Your task to perform on an android device: toggle notifications settings in the gmail app Image 0: 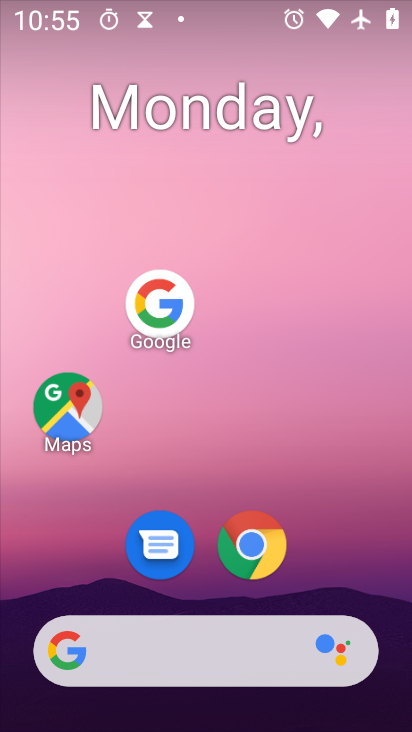
Step 0: press home button
Your task to perform on an android device: toggle notifications settings in the gmail app Image 1: 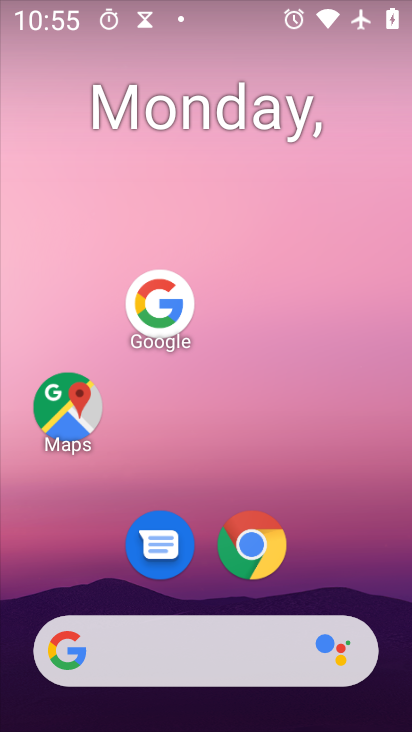
Step 1: drag from (204, 638) to (304, 110)
Your task to perform on an android device: toggle notifications settings in the gmail app Image 2: 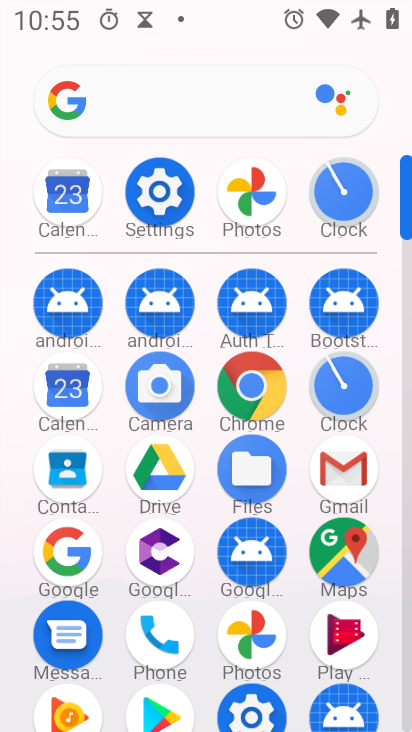
Step 2: click (351, 470)
Your task to perform on an android device: toggle notifications settings in the gmail app Image 3: 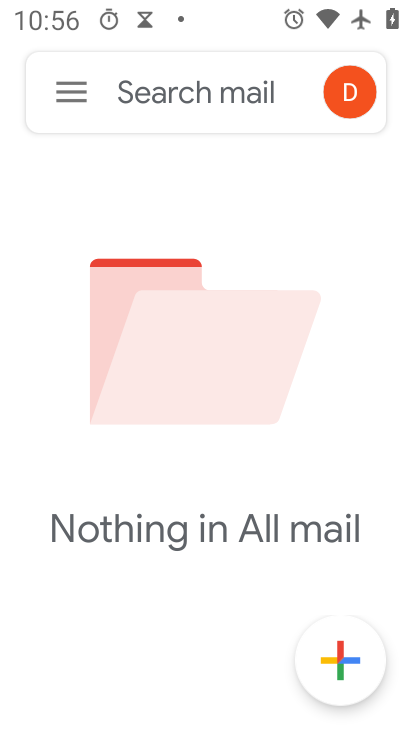
Step 3: click (70, 87)
Your task to perform on an android device: toggle notifications settings in the gmail app Image 4: 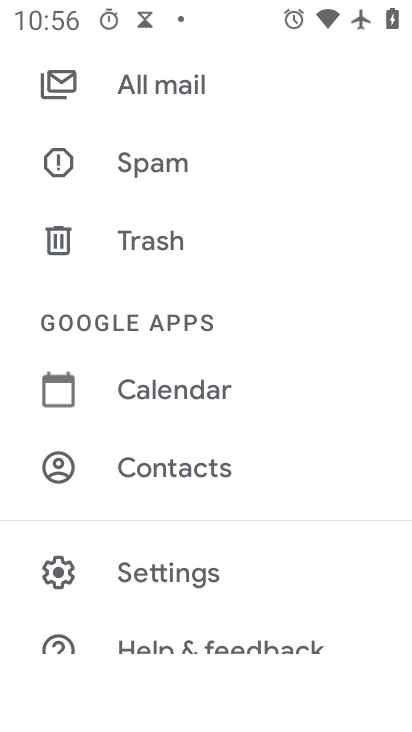
Step 4: click (195, 573)
Your task to perform on an android device: toggle notifications settings in the gmail app Image 5: 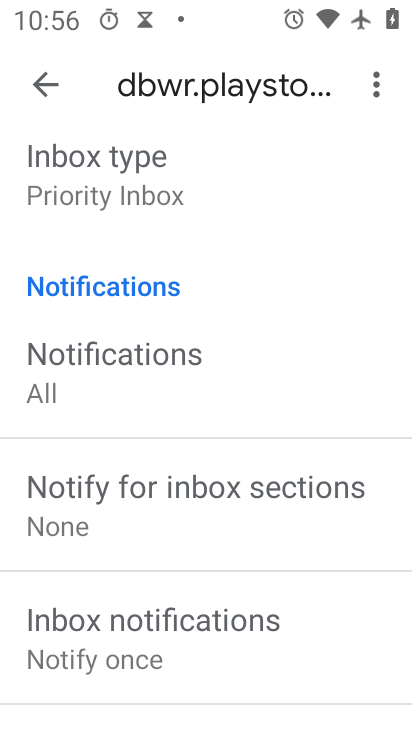
Step 5: click (108, 376)
Your task to perform on an android device: toggle notifications settings in the gmail app Image 6: 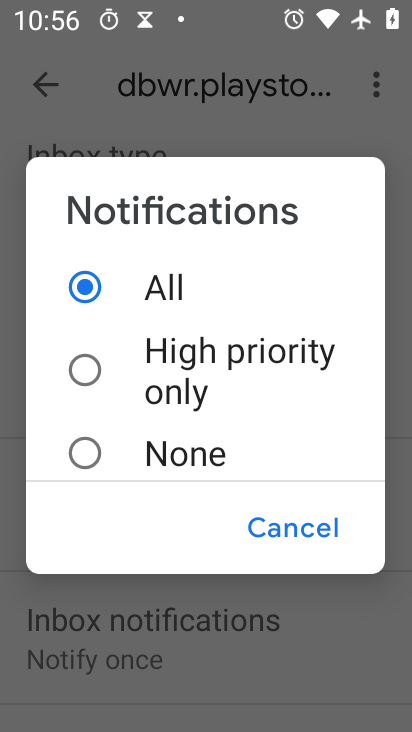
Step 6: click (90, 454)
Your task to perform on an android device: toggle notifications settings in the gmail app Image 7: 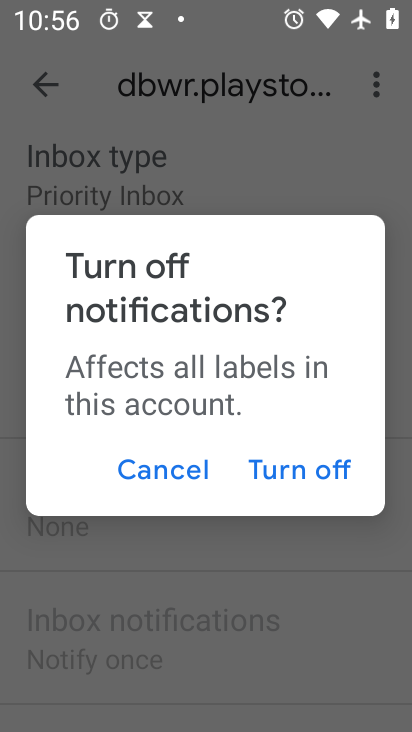
Step 7: click (272, 482)
Your task to perform on an android device: toggle notifications settings in the gmail app Image 8: 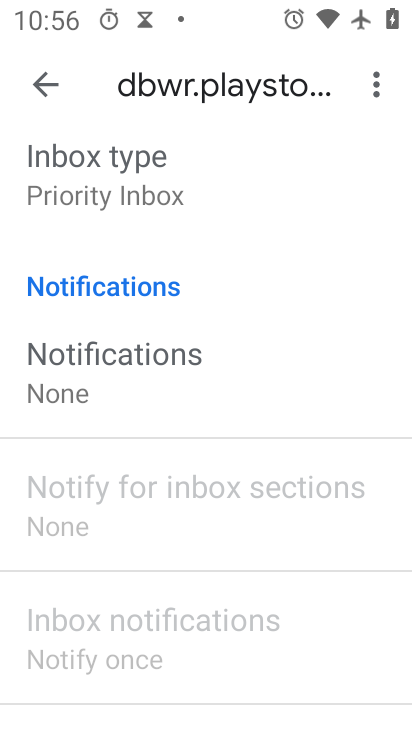
Step 8: task complete